Your task to perform on an android device: Open sound settings Image 0: 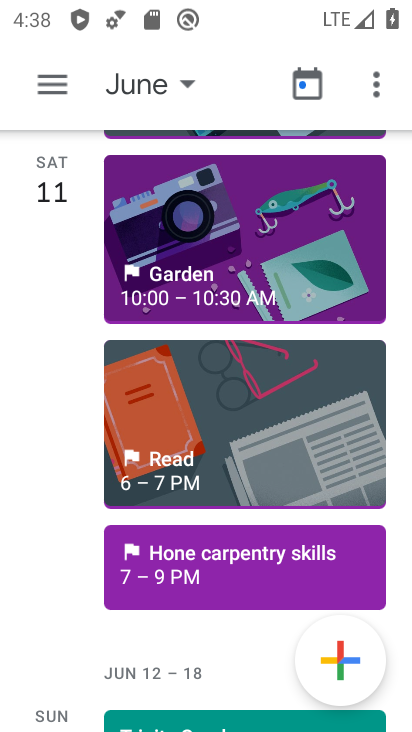
Step 0: press home button
Your task to perform on an android device: Open sound settings Image 1: 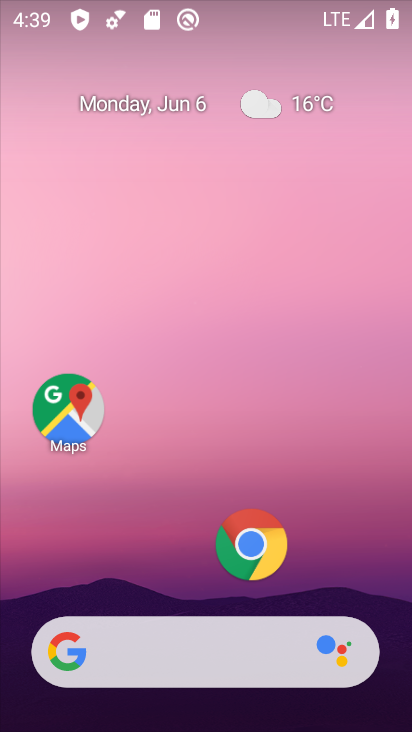
Step 1: drag from (204, 588) to (237, 157)
Your task to perform on an android device: Open sound settings Image 2: 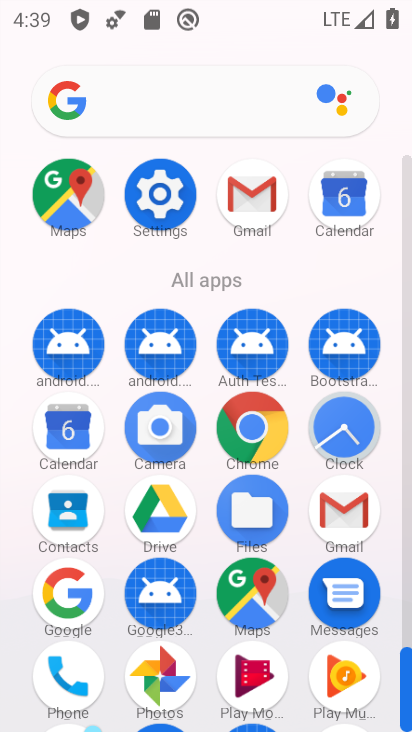
Step 2: click (155, 186)
Your task to perform on an android device: Open sound settings Image 3: 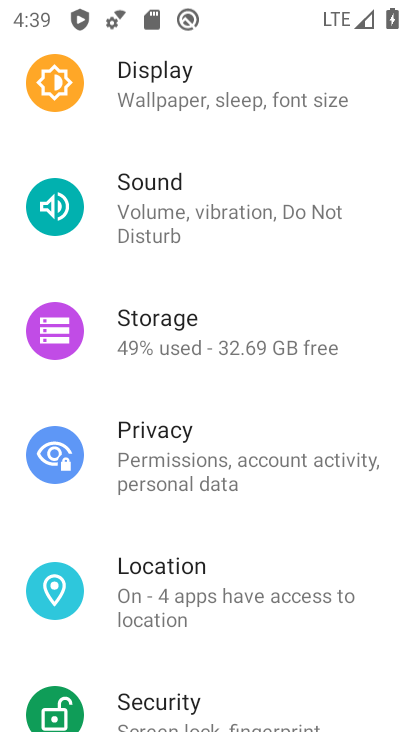
Step 3: click (198, 181)
Your task to perform on an android device: Open sound settings Image 4: 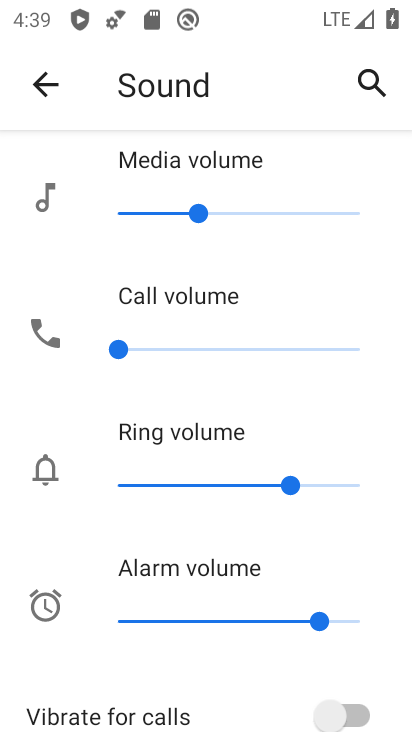
Step 4: drag from (122, 654) to (166, 132)
Your task to perform on an android device: Open sound settings Image 5: 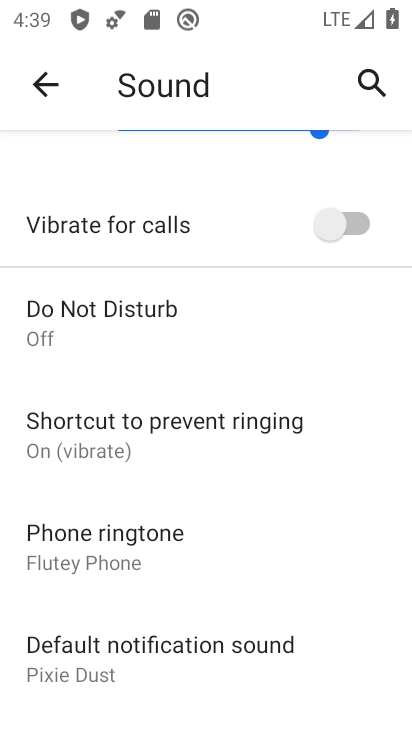
Step 5: drag from (196, 667) to (197, 300)
Your task to perform on an android device: Open sound settings Image 6: 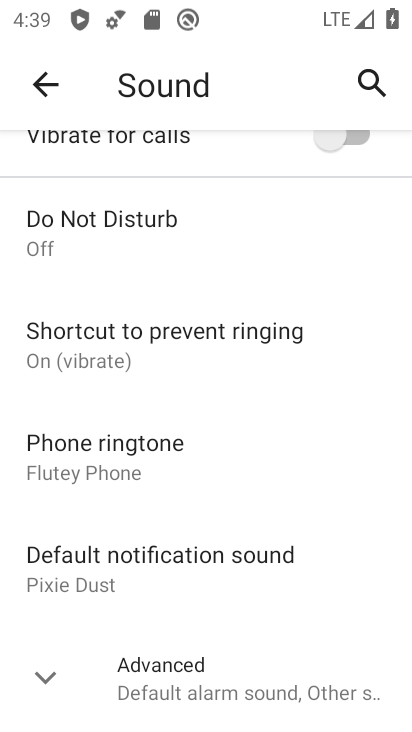
Step 6: click (45, 671)
Your task to perform on an android device: Open sound settings Image 7: 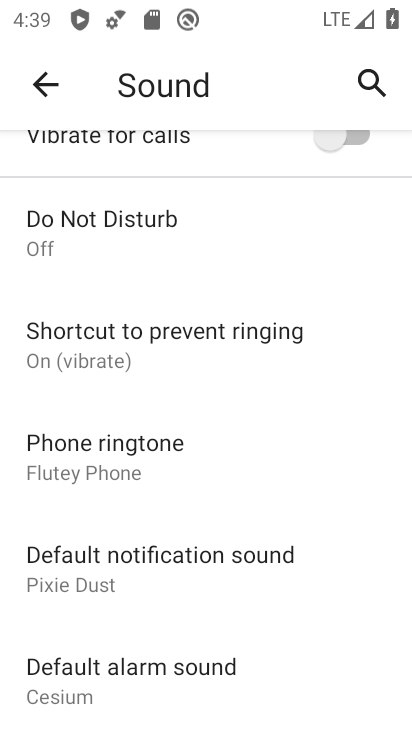
Step 7: task complete